Your task to perform on an android device: see tabs open on other devices in the chrome app Image 0: 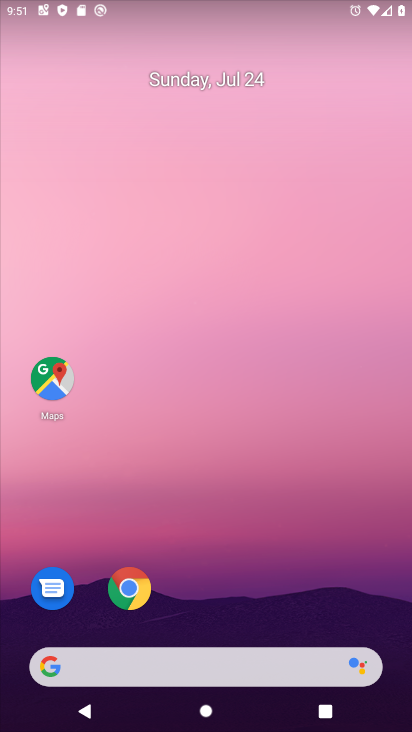
Step 0: drag from (280, 711) to (199, 167)
Your task to perform on an android device: see tabs open on other devices in the chrome app Image 1: 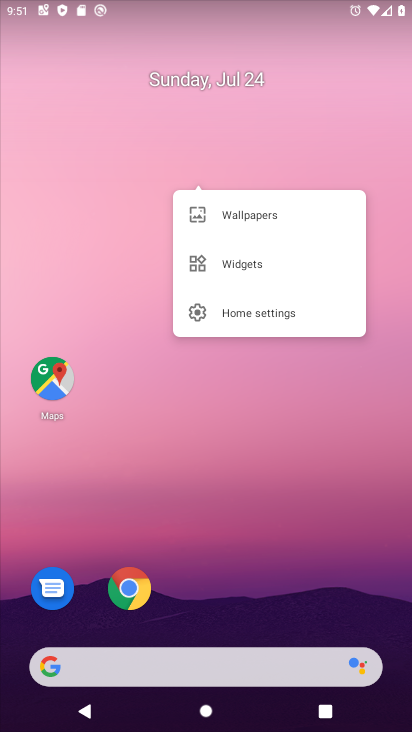
Step 1: drag from (210, 609) to (207, 145)
Your task to perform on an android device: see tabs open on other devices in the chrome app Image 2: 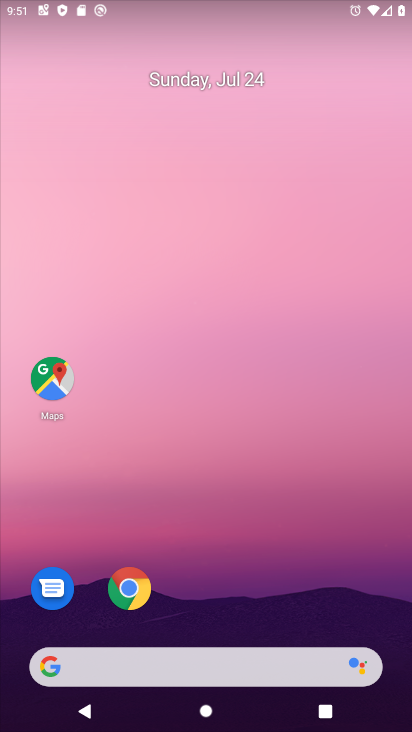
Step 2: drag from (281, 656) to (147, 153)
Your task to perform on an android device: see tabs open on other devices in the chrome app Image 3: 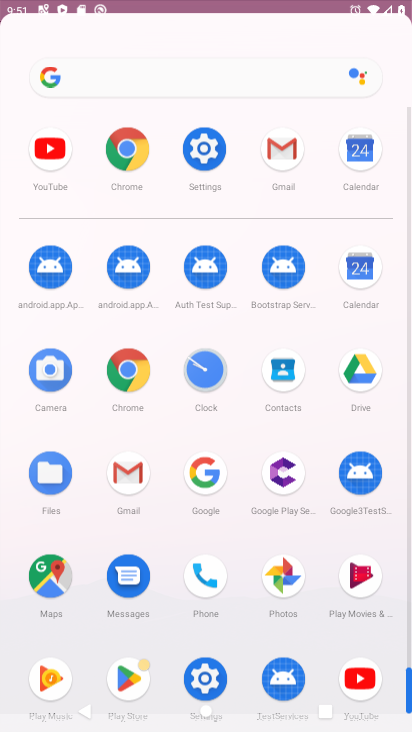
Step 3: click (161, 394)
Your task to perform on an android device: see tabs open on other devices in the chrome app Image 4: 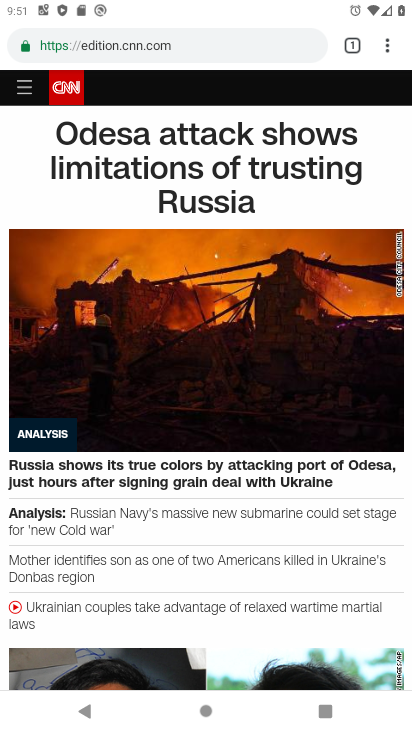
Step 4: click (378, 41)
Your task to perform on an android device: see tabs open on other devices in the chrome app Image 5: 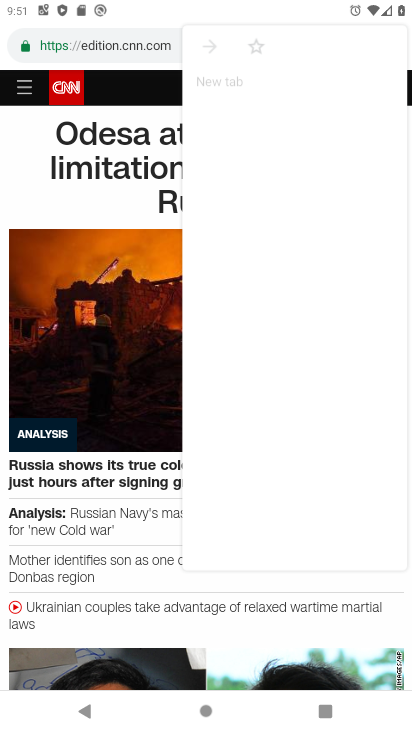
Step 5: click (380, 41)
Your task to perform on an android device: see tabs open on other devices in the chrome app Image 6: 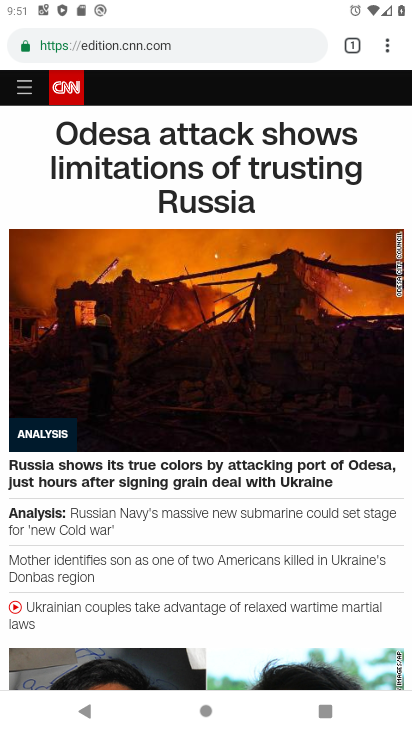
Step 6: drag from (393, 46) to (236, 212)
Your task to perform on an android device: see tabs open on other devices in the chrome app Image 7: 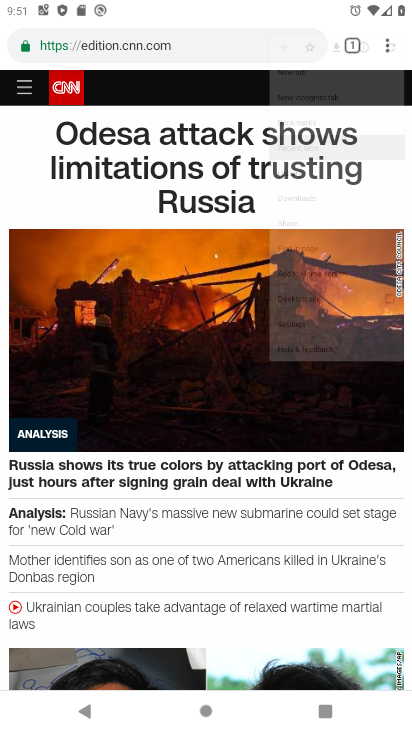
Step 7: click (236, 210)
Your task to perform on an android device: see tabs open on other devices in the chrome app Image 8: 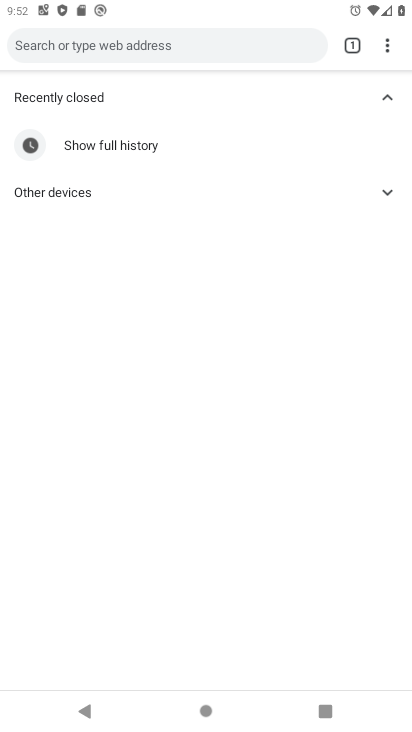
Step 8: task complete